Your task to perform on an android device: uninstall "Pluto TV - Live TV and Movies" Image 0: 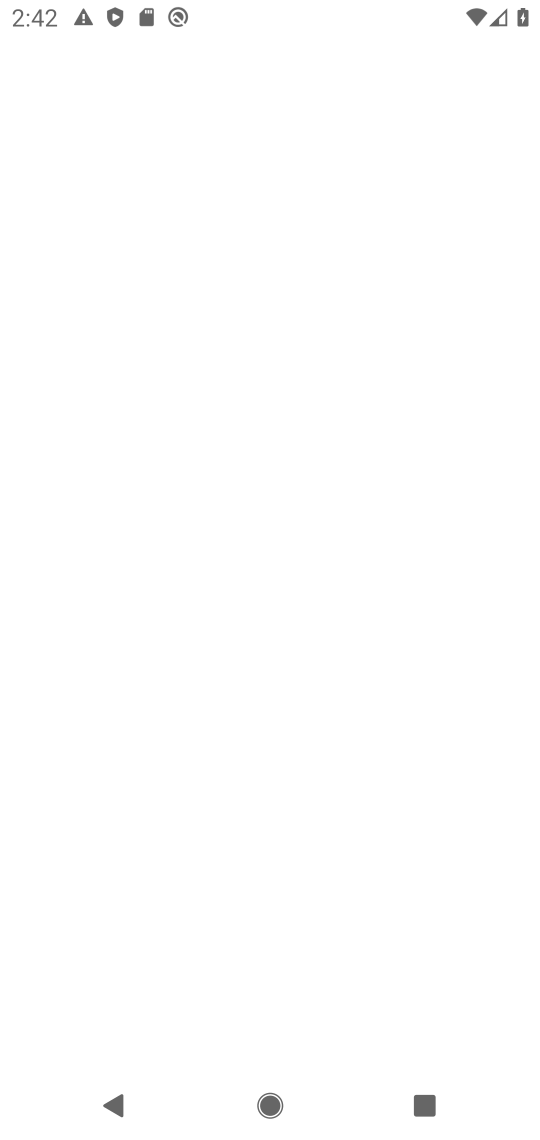
Step 0: press home button
Your task to perform on an android device: uninstall "Pluto TV - Live TV and Movies" Image 1: 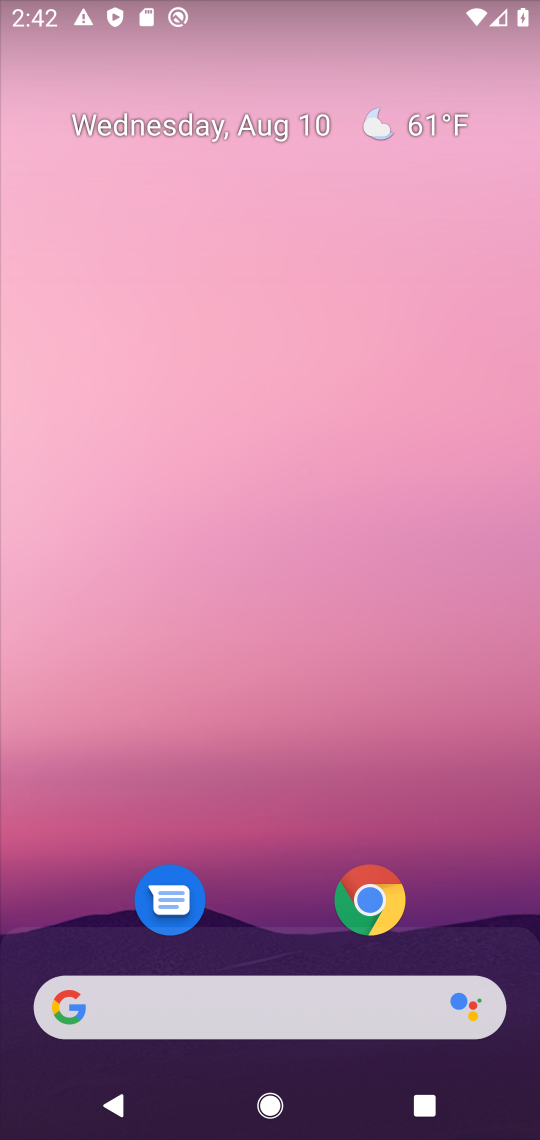
Step 1: drag from (267, 982) to (321, 282)
Your task to perform on an android device: uninstall "Pluto TV - Live TV and Movies" Image 2: 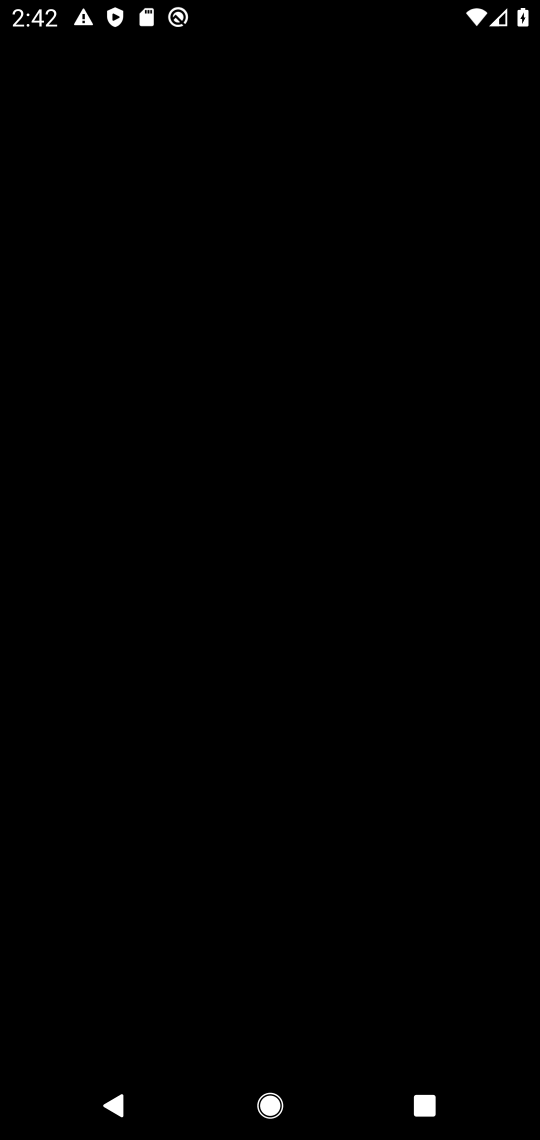
Step 2: press home button
Your task to perform on an android device: uninstall "Pluto TV - Live TV and Movies" Image 3: 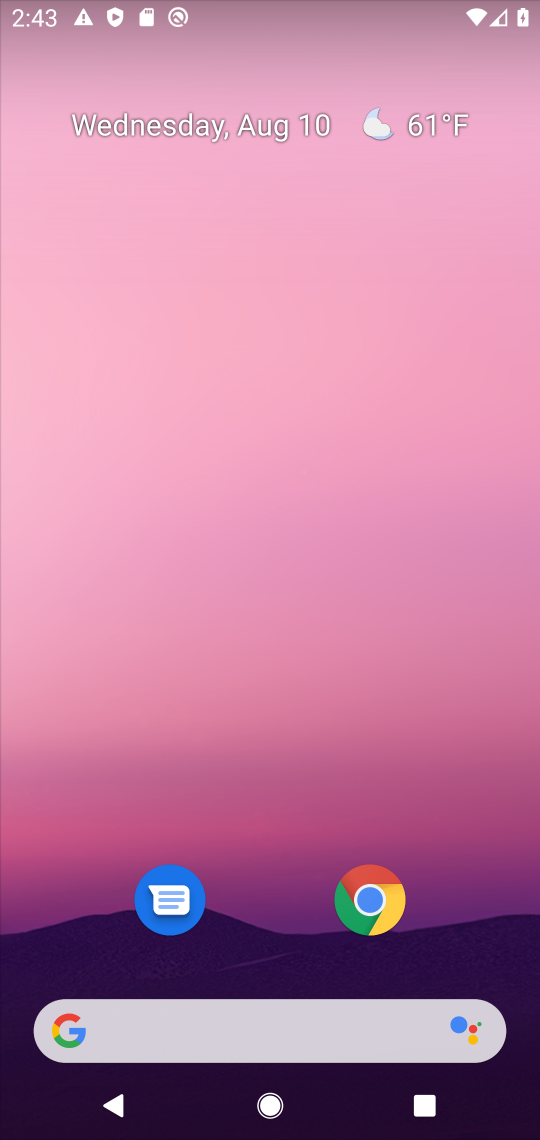
Step 3: drag from (271, 974) to (278, 22)
Your task to perform on an android device: uninstall "Pluto TV - Live TV and Movies" Image 4: 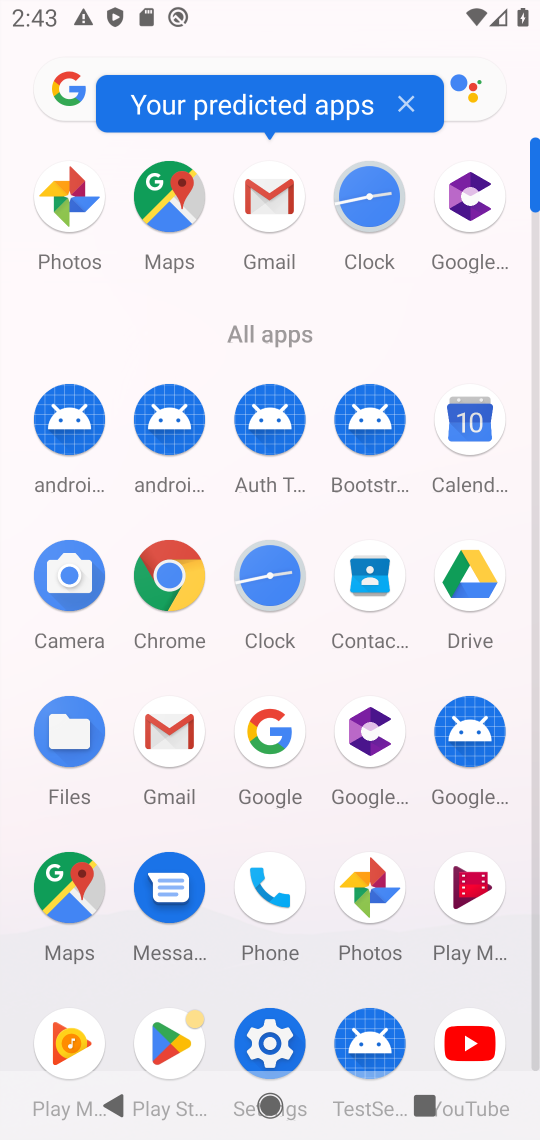
Step 4: click (175, 1025)
Your task to perform on an android device: uninstall "Pluto TV - Live TV and Movies" Image 5: 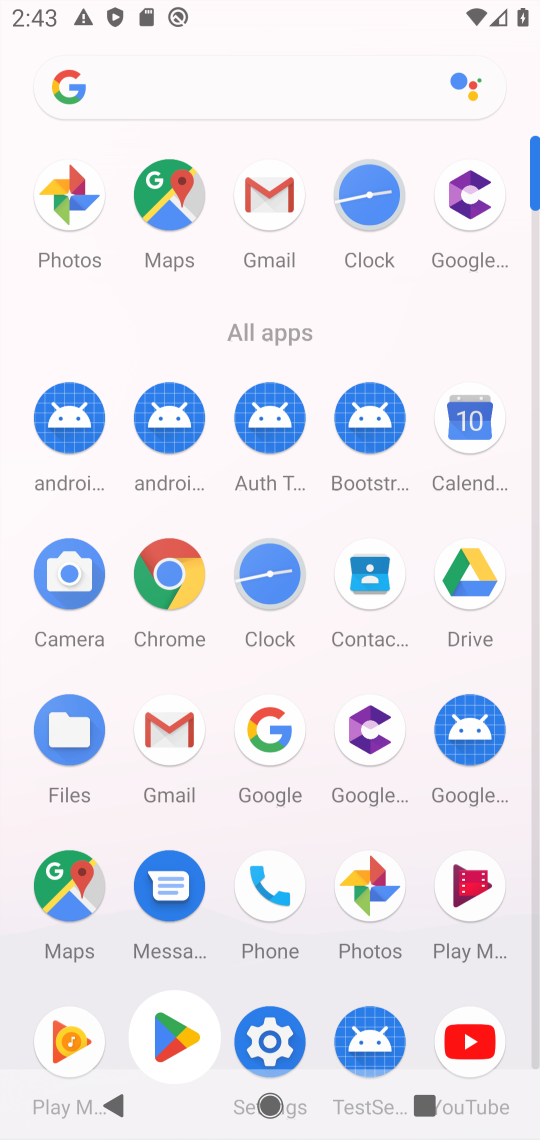
Step 5: task complete